Your task to perform on an android device: Open the web browser Image 0: 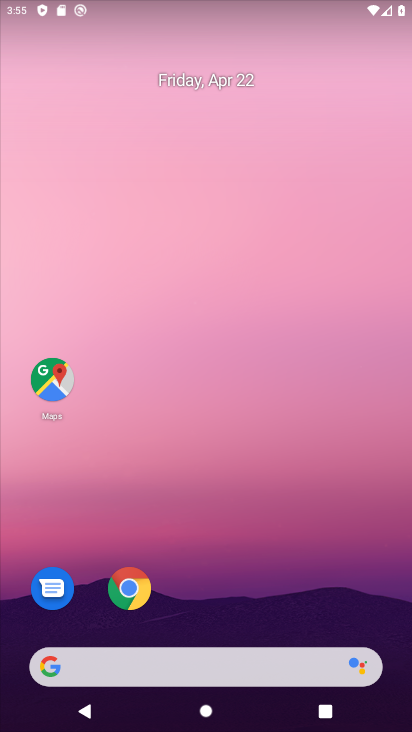
Step 0: click (128, 592)
Your task to perform on an android device: Open the web browser Image 1: 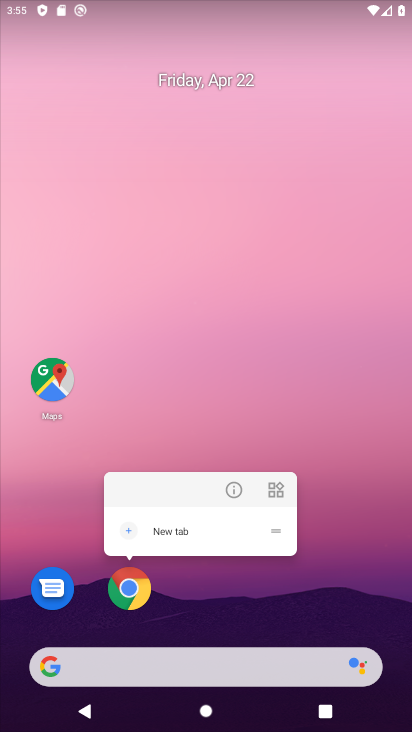
Step 1: click (130, 577)
Your task to perform on an android device: Open the web browser Image 2: 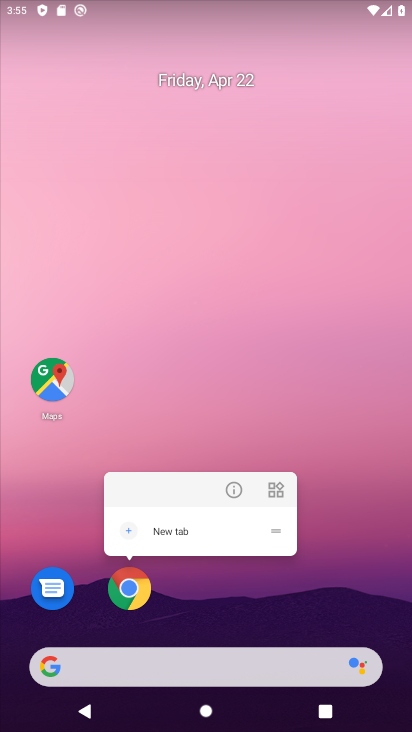
Step 2: click (130, 587)
Your task to perform on an android device: Open the web browser Image 3: 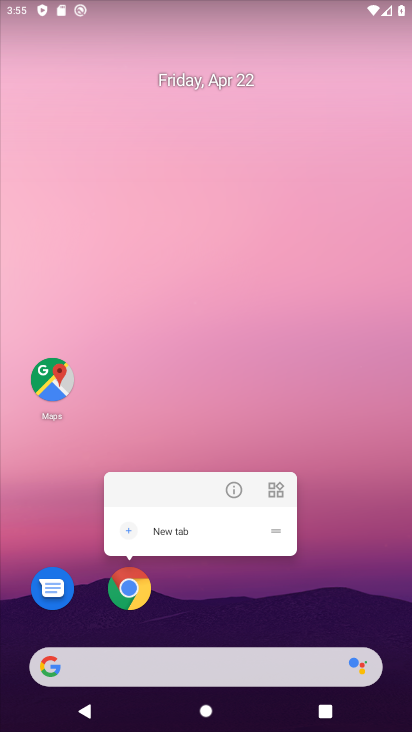
Step 3: click (136, 583)
Your task to perform on an android device: Open the web browser Image 4: 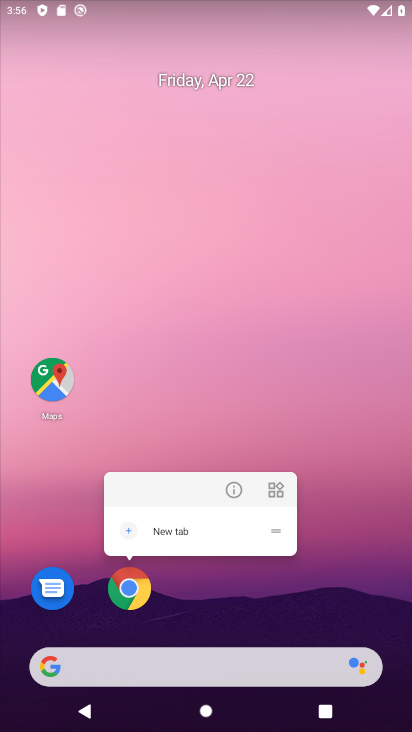
Step 4: click (123, 611)
Your task to perform on an android device: Open the web browser Image 5: 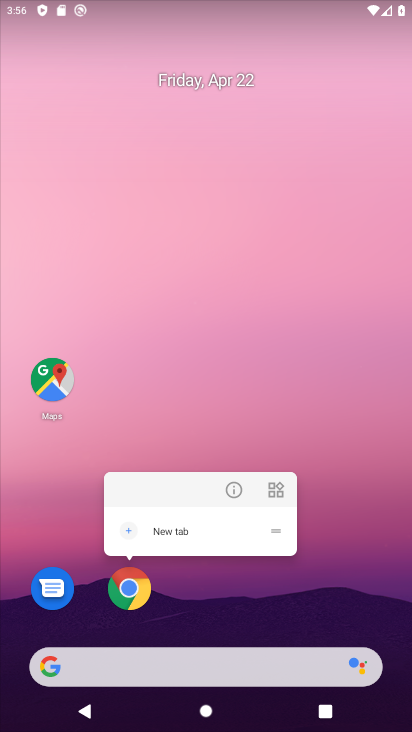
Step 5: click (132, 598)
Your task to perform on an android device: Open the web browser Image 6: 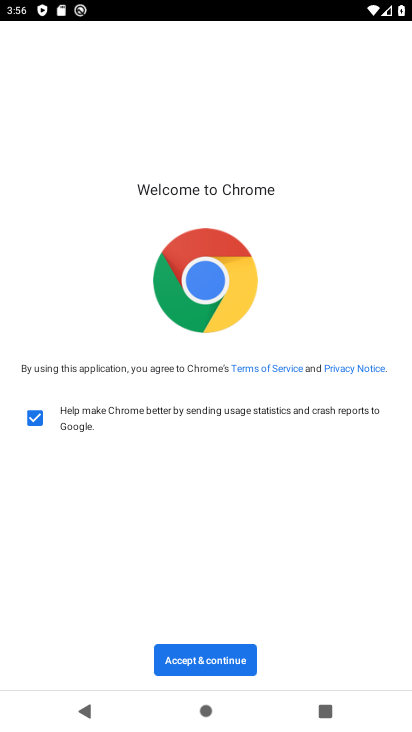
Step 6: click (224, 661)
Your task to perform on an android device: Open the web browser Image 7: 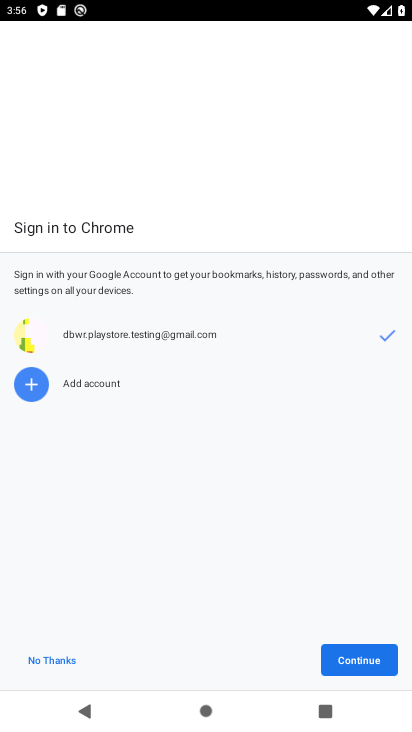
Step 7: click (341, 652)
Your task to perform on an android device: Open the web browser Image 8: 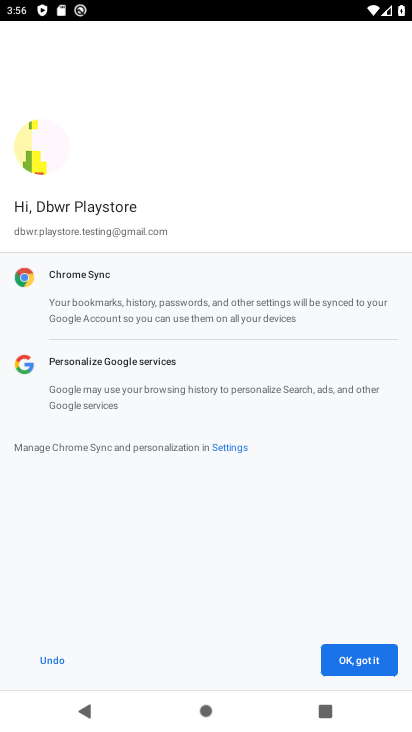
Step 8: click (370, 666)
Your task to perform on an android device: Open the web browser Image 9: 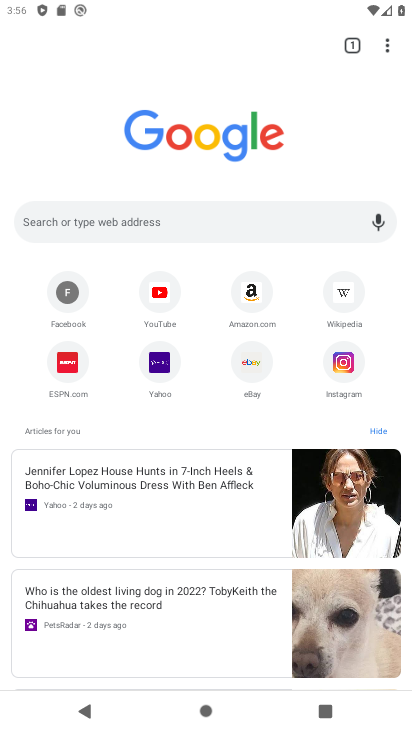
Step 9: click (213, 199)
Your task to perform on an android device: Open the web browser Image 10: 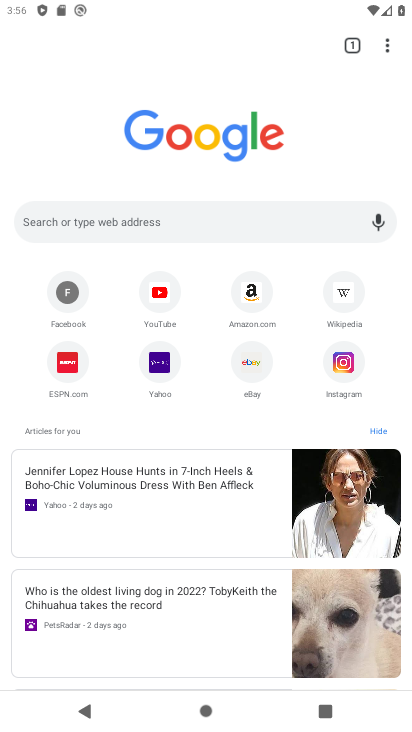
Step 10: click (235, 223)
Your task to perform on an android device: Open the web browser Image 11: 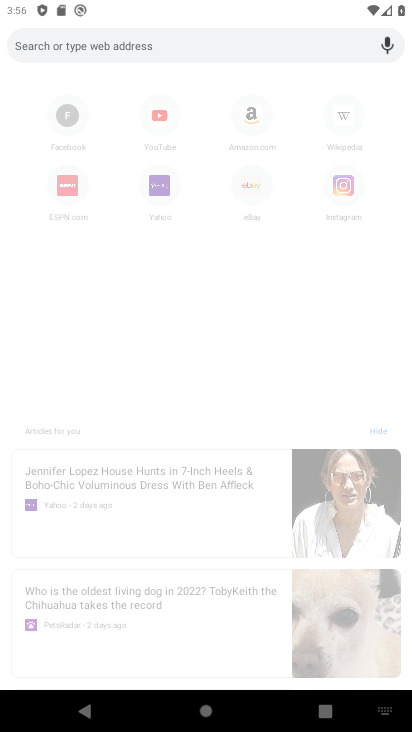
Step 11: task complete